Your task to perform on an android device: Go to network settings Image 0: 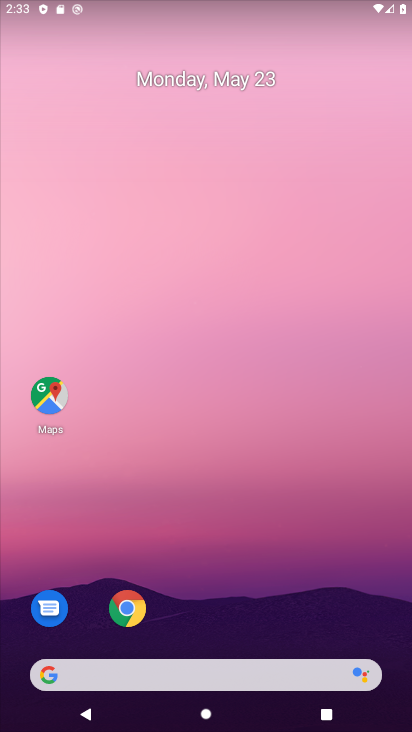
Step 0: drag from (225, 585) to (241, 237)
Your task to perform on an android device: Go to network settings Image 1: 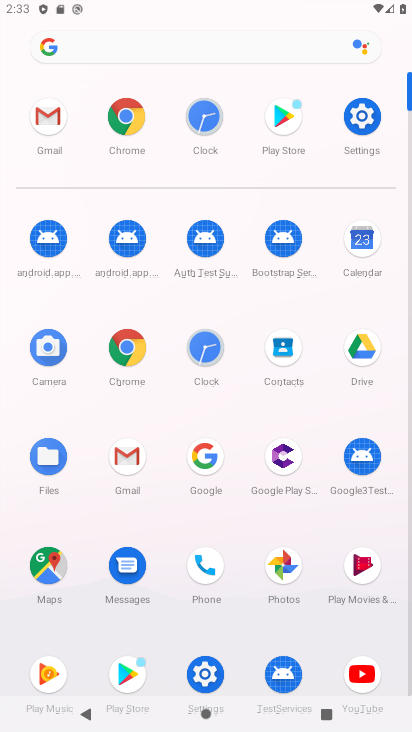
Step 1: click (338, 118)
Your task to perform on an android device: Go to network settings Image 2: 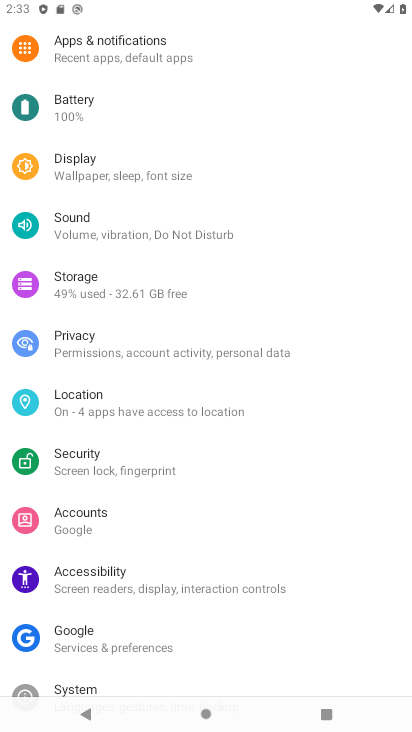
Step 2: drag from (162, 116) to (127, 506)
Your task to perform on an android device: Go to network settings Image 3: 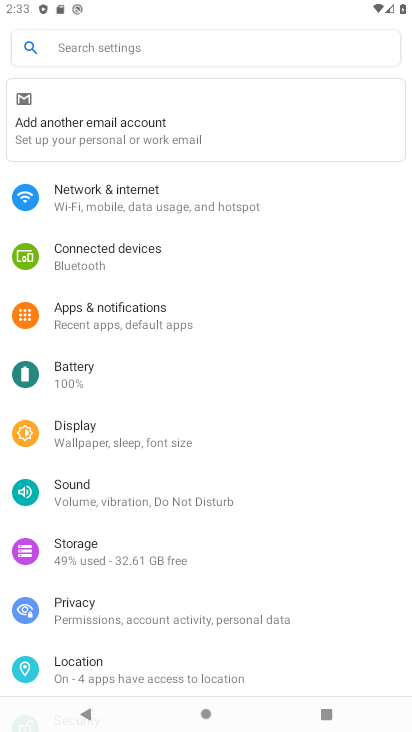
Step 3: click (139, 195)
Your task to perform on an android device: Go to network settings Image 4: 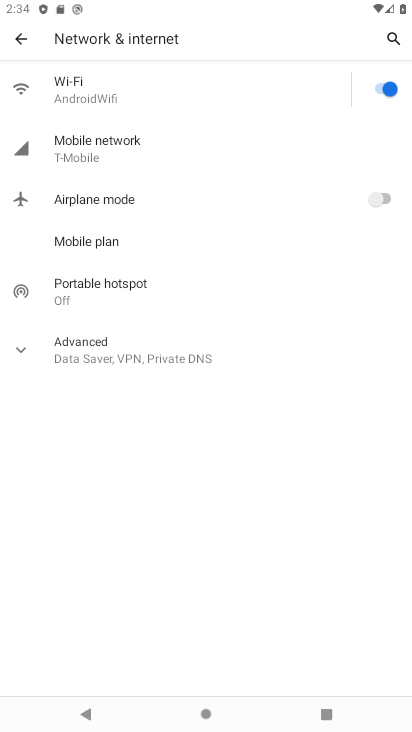
Step 4: click (166, 136)
Your task to perform on an android device: Go to network settings Image 5: 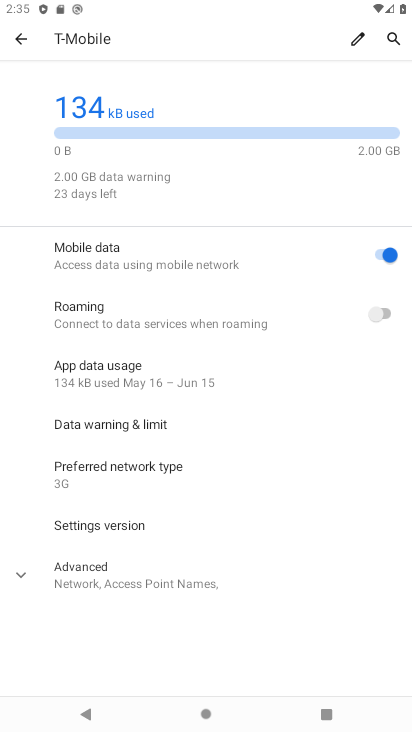
Step 5: task complete